Your task to perform on an android device: Search for the best rated 3d printer on Amazon. Image 0: 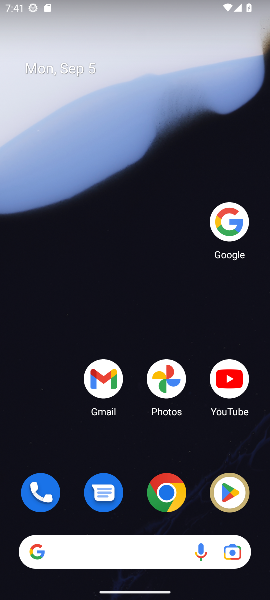
Step 0: click (231, 219)
Your task to perform on an android device: Search for the best rated 3d printer on Amazon. Image 1: 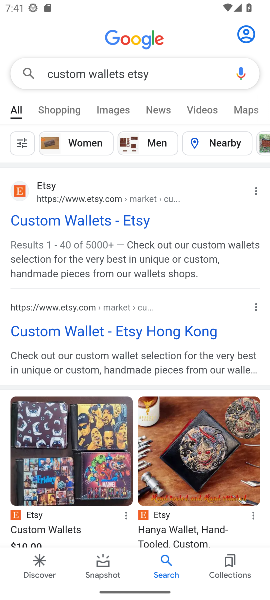
Step 1: click (156, 63)
Your task to perform on an android device: Search for the best rated 3d printer on Amazon. Image 2: 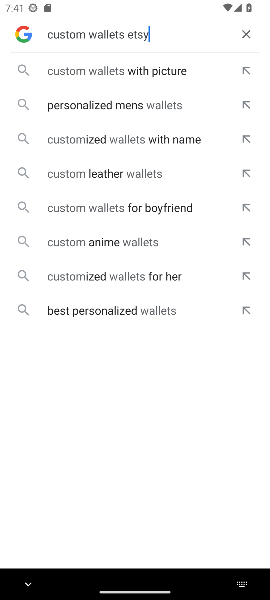
Step 2: click (254, 33)
Your task to perform on an android device: Search for the best rated 3d printer on Amazon. Image 3: 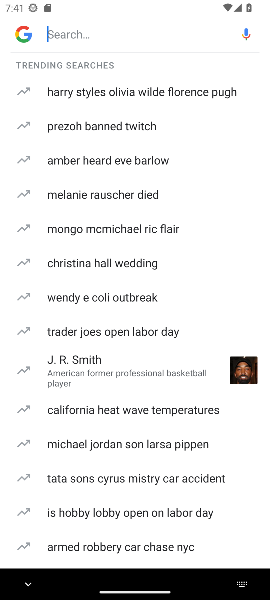
Step 3: click (105, 35)
Your task to perform on an android device: Search for the best rated 3d printer on Amazon. Image 4: 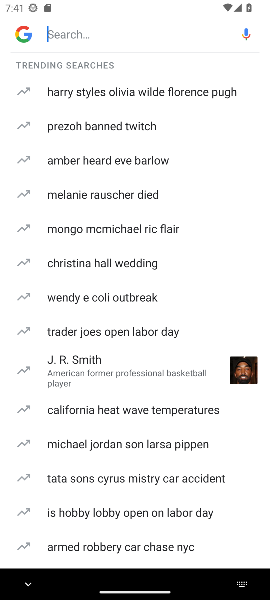
Step 4: type " best rated 3d printer on Amazon "
Your task to perform on an android device: Search for the best rated 3d printer on Amazon. Image 5: 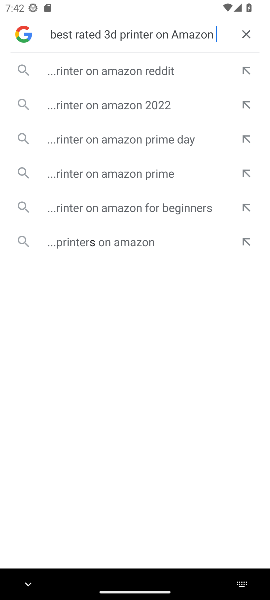
Step 5: click (113, 77)
Your task to perform on an android device: Search for the best rated 3d printer on Amazon. Image 6: 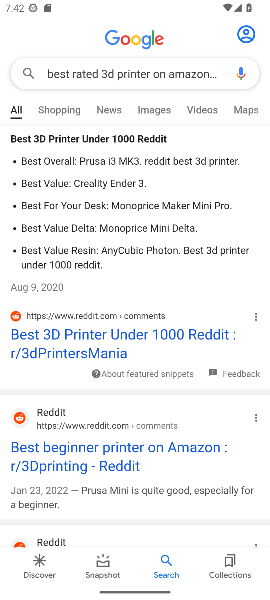
Step 6: click (74, 445)
Your task to perform on an android device: Search for the best rated 3d printer on Amazon. Image 7: 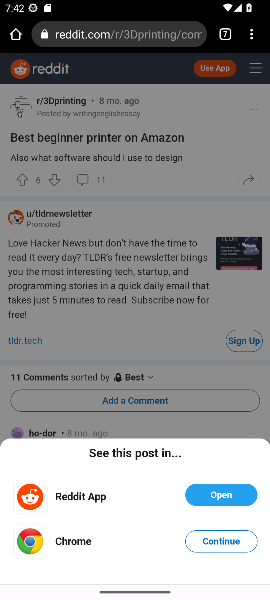
Step 7: click (172, 204)
Your task to perform on an android device: Search for the best rated 3d printer on Amazon. Image 8: 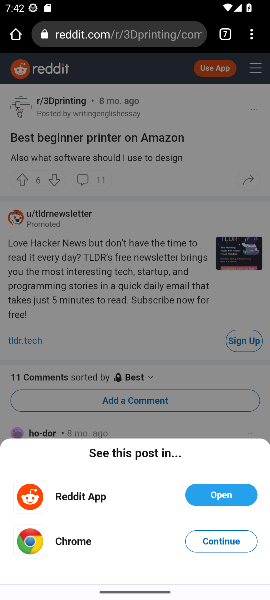
Step 8: click (172, 204)
Your task to perform on an android device: Search for the best rated 3d printer on Amazon. Image 9: 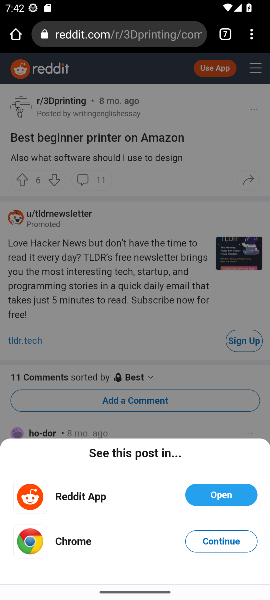
Step 9: press back button
Your task to perform on an android device: Search for the best rated 3d printer on Amazon. Image 10: 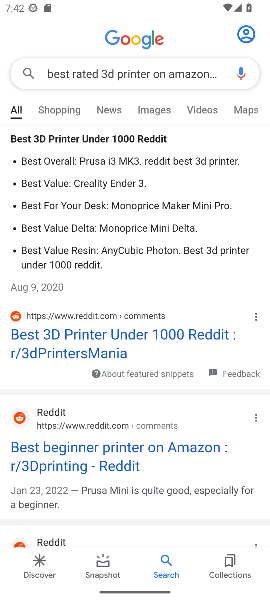
Step 10: drag from (103, 455) to (161, 250)
Your task to perform on an android device: Search for the best rated 3d printer on Amazon. Image 11: 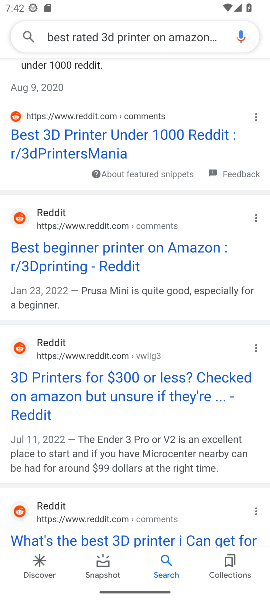
Step 11: drag from (100, 504) to (182, 204)
Your task to perform on an android device: Search for the best rated 3d printer on Amazon. Image 12: 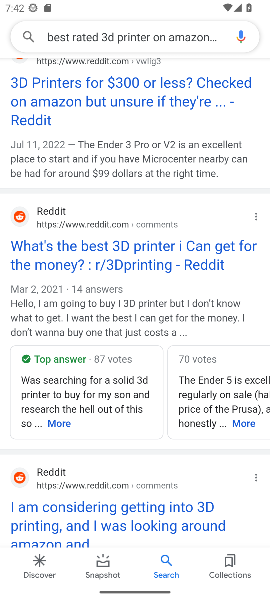
Step 12: drag from (158, 391) to (203, 210)
Your task to perform on an android device: Search for the best rated 3d printer on Amazon. Image 13: 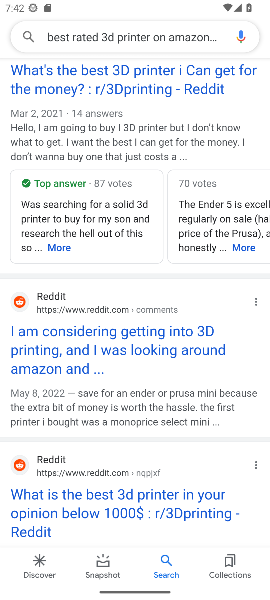
Step 13: drag from (124, 511) to (177, 178)
Your task to perform on an android device: Search for the best rated 3d printer on Amazon. Image 14: 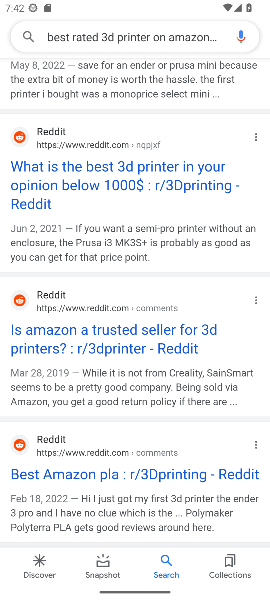
Step 14: drag from (154, 149) to (140, 552)
Your task to perform on an android device: Search for the best rated 3d printer on Amazon. Image 15: 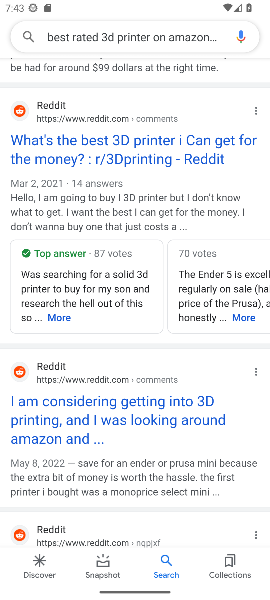
Step 15: drag from (152, 252) to (152, 569)
Your task to perform on an android device: Search for the best rated 3d printer on Amazon. Image 16: 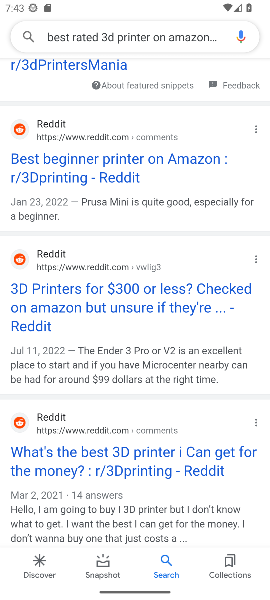
Step 16: click (157, 161)
Your task to perform on an android device: Search for the best rated 3d printer on Amazon. Image 17: 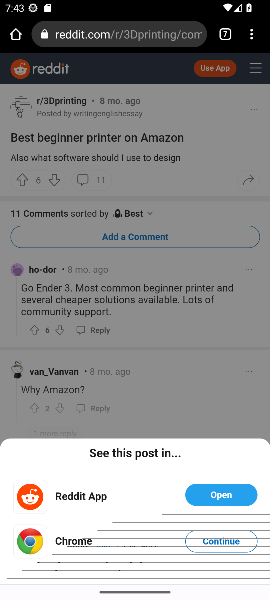
Step 17: click (202, 377)
Your task to perform on an android device: Search for the best rated 3d printer on Amazon. Image 18: 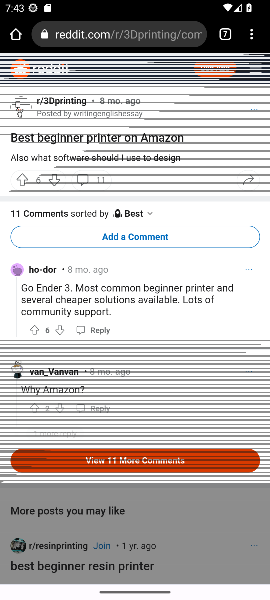
Step 18: press back button
Your task to perform on an android device: Search for the best rated 3d printer on Amazon. Image 19: 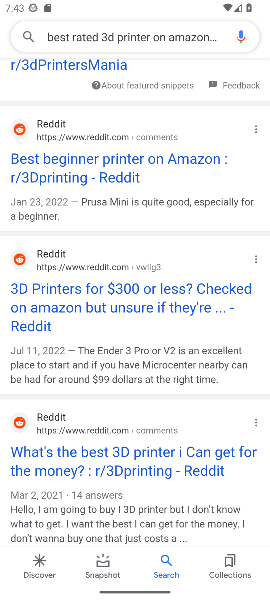
Step 19: drag from (95, 135) to (107, 459)
Your task to perform on an android device: Search for the best rated 3d printer on Amazon. Image 20: 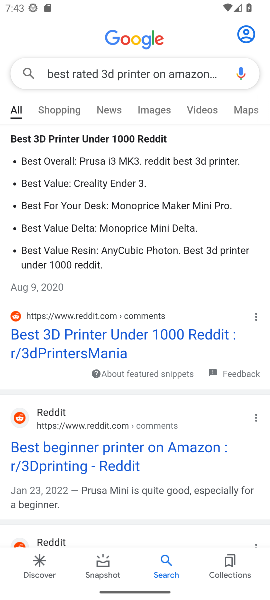
Step 20: drag from (111, 486) to (136, 219)
Your task to perform on an android device: Search for the best rated 3d printer on Amazon. Image 21: 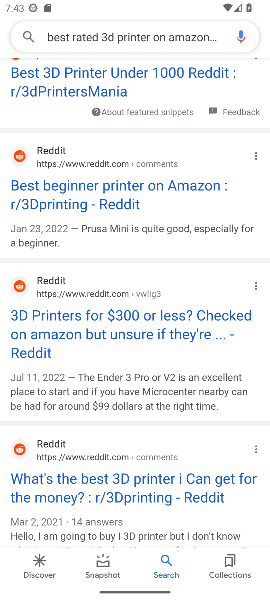
Step 21: drag from (98, 455) to (166, 152)
Your task to perform on an android device: Search for the best rated 3d printer on Amazon. Image 22: 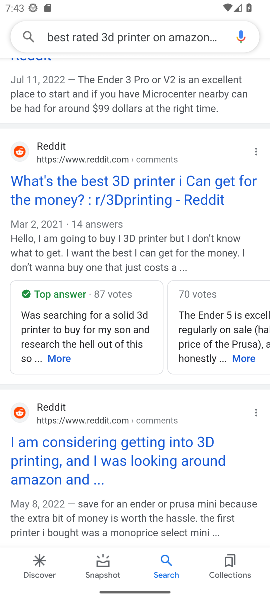
Step 22: drag from (131, 471) to (156, 149)
Your task to perform on an android device: Search for the best rated 3d printer on Amazon. Image 23: 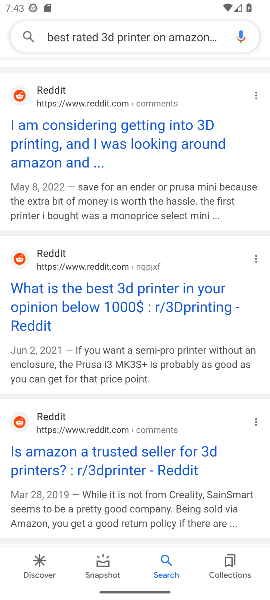
Step 23: drag from (177, 442) to (214, 90)
Your task to perform on an android device: Search for the best rated 3d printer on Amazon. Image 24: 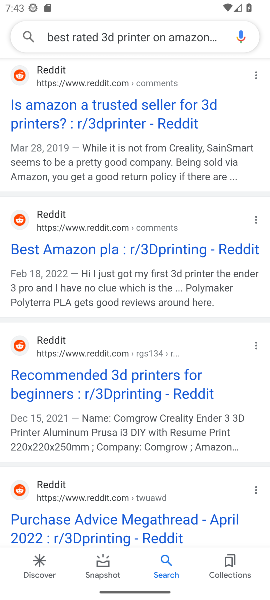
Step 24: drag from (118, 220) to (120, 100)
Your task to perform on an android device: Search for the best rated 3d printer on Amazon. Image 25: 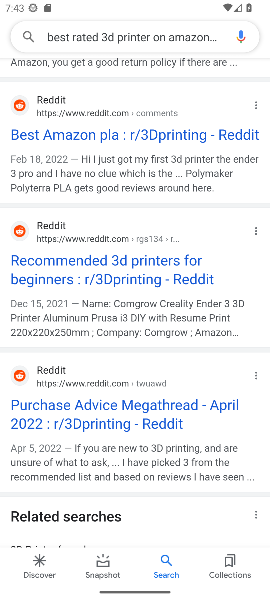
Step 25: drag from (118, 465) to (135, 166)
Your task to perform on an android device: Search for the best rated 3d printer on Amazon. Image 26: 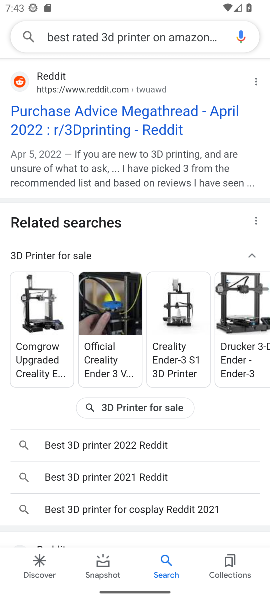
Step 26: drag from (136, 116) to (146, 459)
Your task to perform on an android device: Search for the best rated 3d printer on Amazon. Image 27: 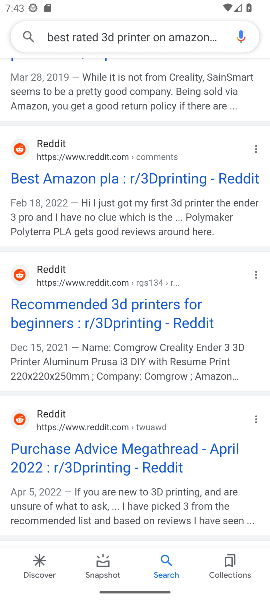
Step 27: drag from (148, 152) to (139, 465)
Your task to perform on an android device: Search for the best rated 3d printer on Amazon. Image 28: 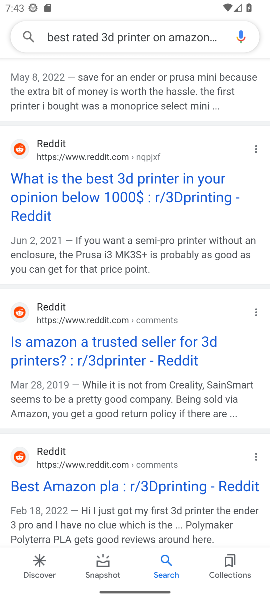
Step 28: click (135, 509)
Your task to perform on an android device: Search for the best rated 3d printer on Amazon. Image 29: 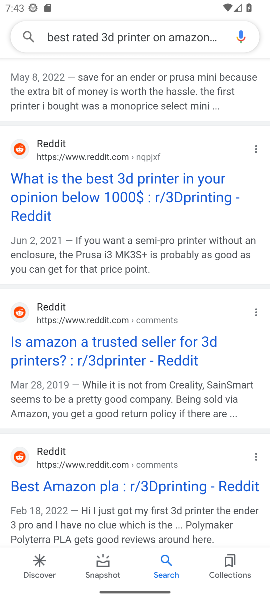
Step 29: drag from (117, 118) to (119, 382)
Your task to perform on an android device: Search for the best rated 3d printer on Amazon. Image 30: 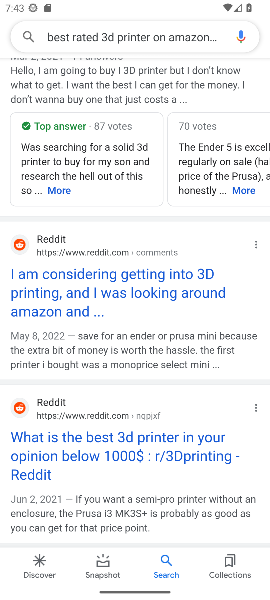
Step 30: drag from (141, 141) to (142, 393)
Your task to perform on an android device: Search for the best rated 3d printer on Amazon. Image 31: 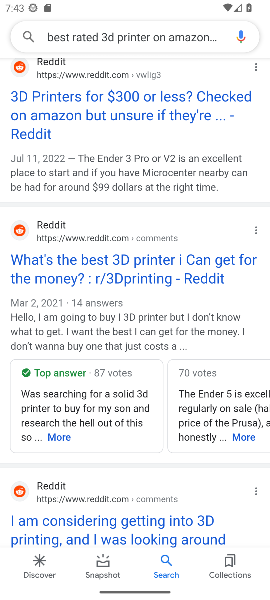
Step 31: drag from (96, 460) to (98, 528)
Your task to perform on an android device: Search for the best rated 3d printer on Amazon. Image 32: 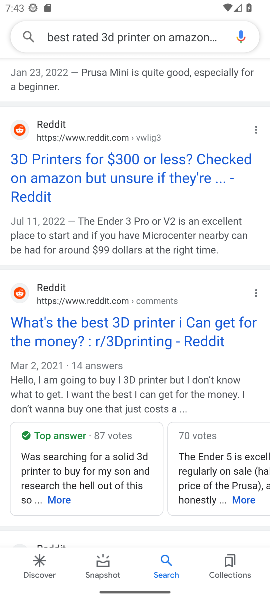
Step 32: drag from (107, 135) to (113, 555)
Your task to perform on an android device: Search for the best rated 3d printer on Amazon. Image 33: 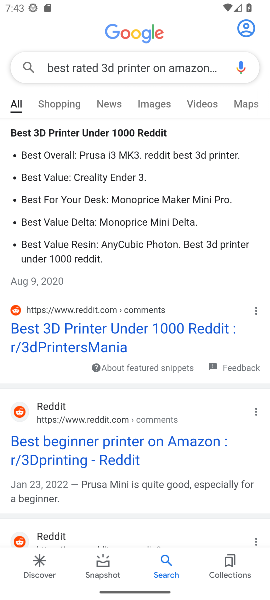
Step 33: click (84, 436)
Your task to perform on an android device: Search for the best rated 3d printer on Amazon. Image 34: 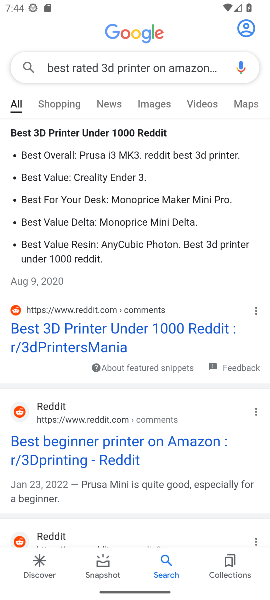
Step 34: task complete